Your task to perform on an android device: Go to notification settings Image 0: 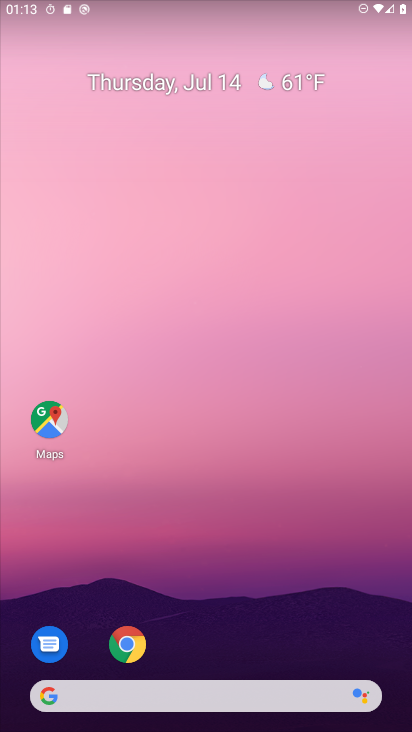
Step 0: drag from (212, 503) to (135, 0)
Your task to perform on an android device: Go to notification settings Image 1: 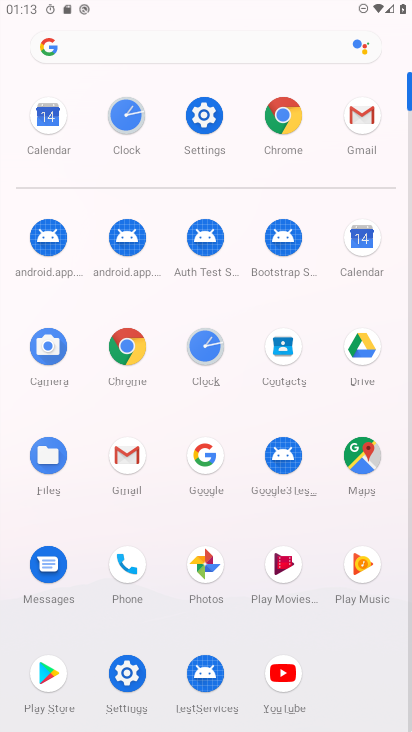
Step 1: click (201, 119)
Your task to perform on an android device: Go to notification settings Image 2: 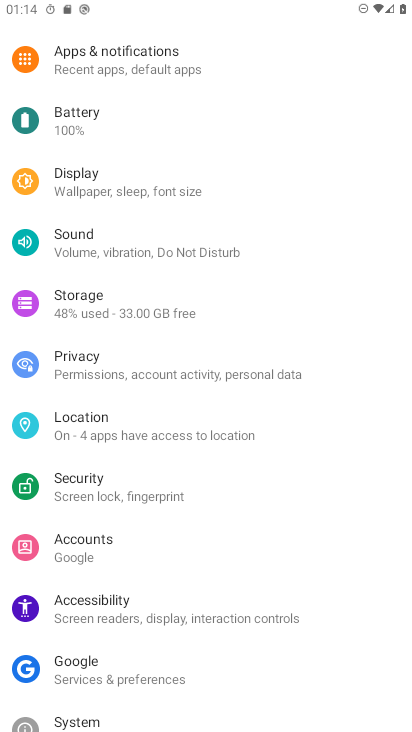
Step 2: click (144, 55)
Your task to perform on an android device: Go to notification settings Image 3: 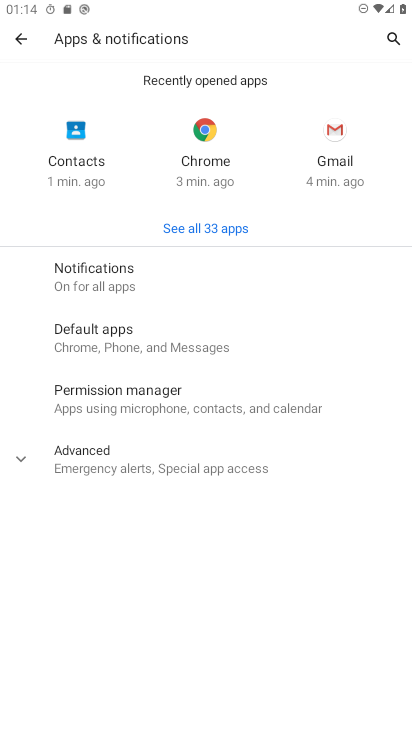
Step 3: click (111, 284)
Your task to perform on an android device: Go to notification settings Image 4: 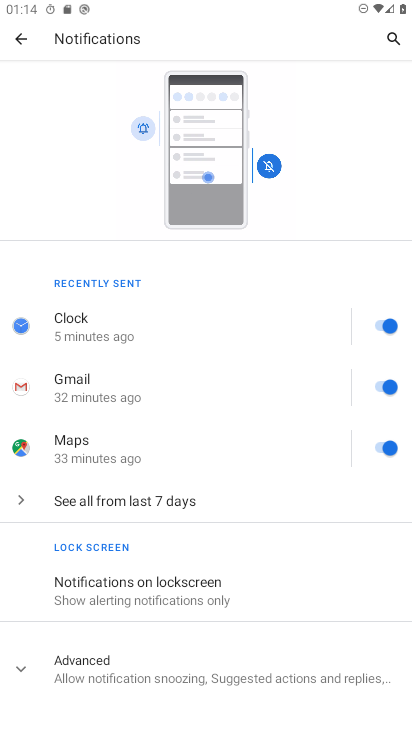
Step 4: task complete